Your task to perform on an android device: check battery use Image 0: 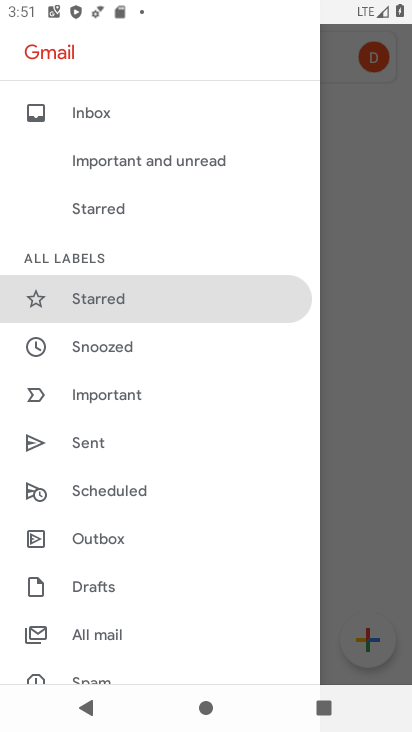
Step 0: press home button
Your task to perform on an android device: check battery use Image 1: 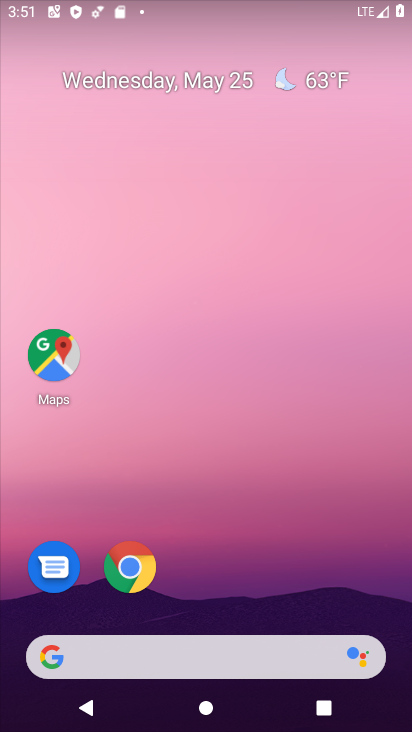
Step 1: drag from (257, 610) to (267, 113)
Your task to perform on an android device: check battery use Image 2: 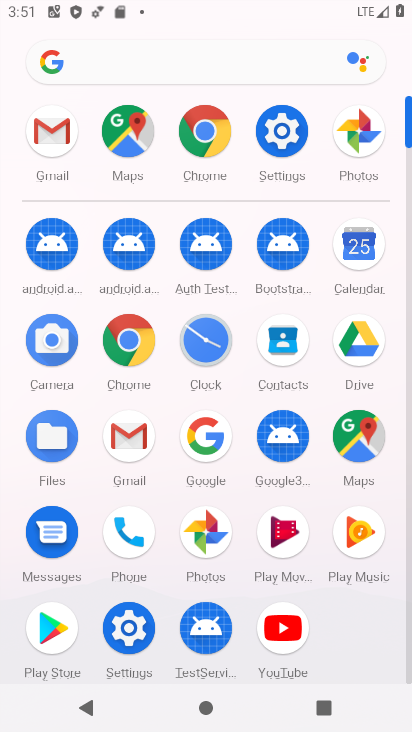
Step 2: click (117, 625)
Your task to perform on an android device: check battery use Image 3: 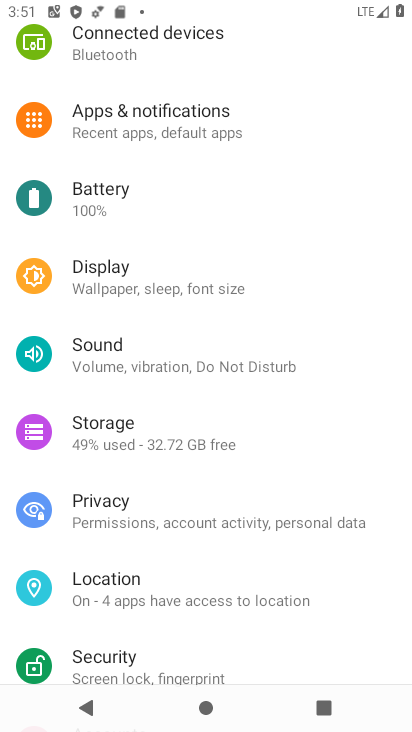
Step 3: click (120, 199)
Your task to perform on an android device: check battery use Image 4: 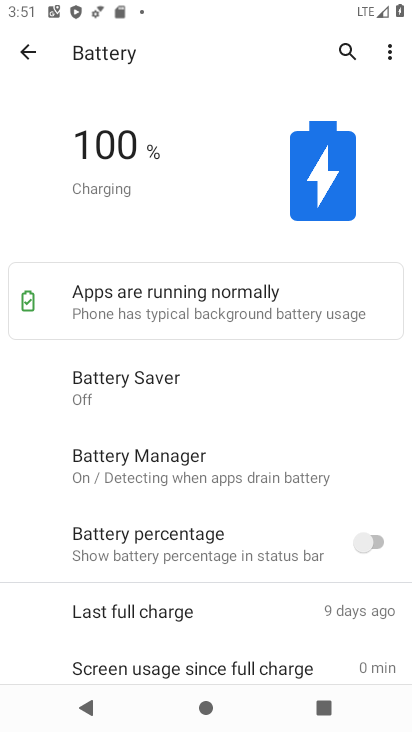
Step 4: task complete